Your task to perform on an android device: Clear all items from cart on ebay.com. Image 0: 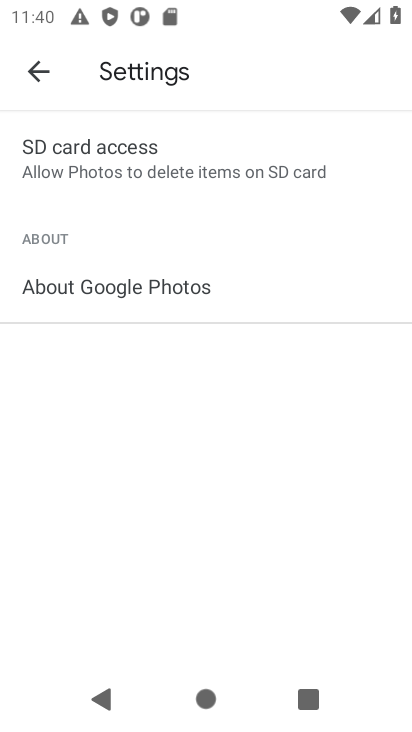
Step 0: press home button
Your task to perform on an android device: Clear all items from cart on ebay.com. Image 1: 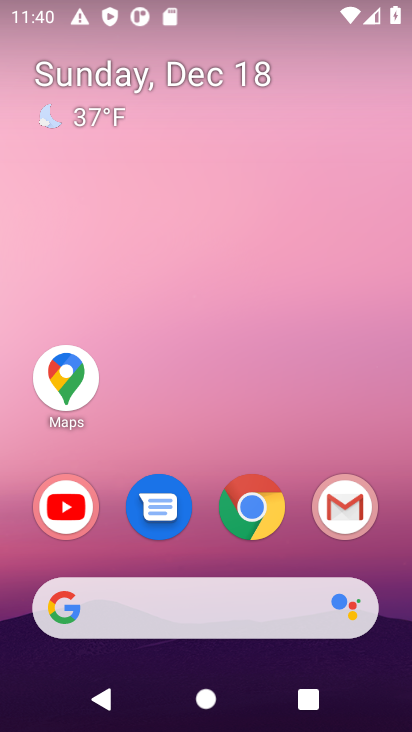
Step 1: click (253, 512)
Your task to perform on an android device: Clear all items from cart on ebay.com. Image 2: 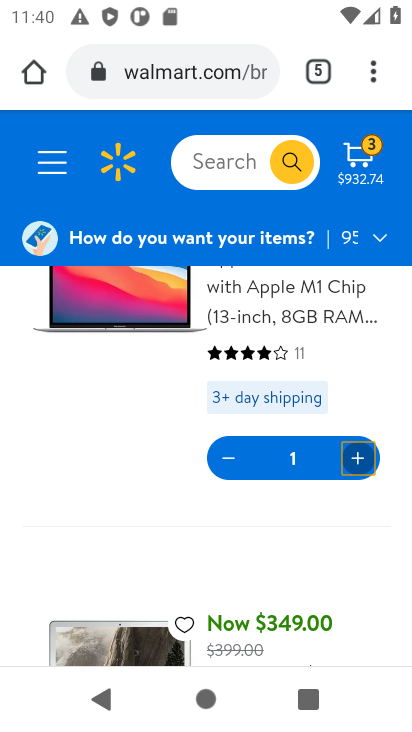
Step 2: click (163, 78)
Your task to perform on an android device: Clear all items from cart on ebay.com. Image 3: 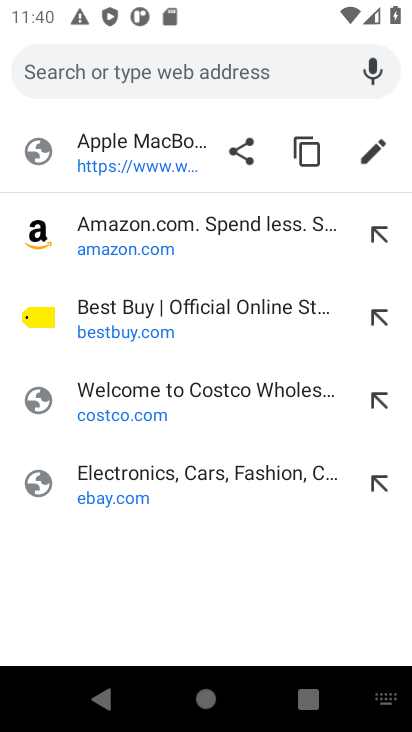
Step 3: click (107, 482)
Your task to perform on an android device: Clear all items from cart on ebay.com. Image 4: 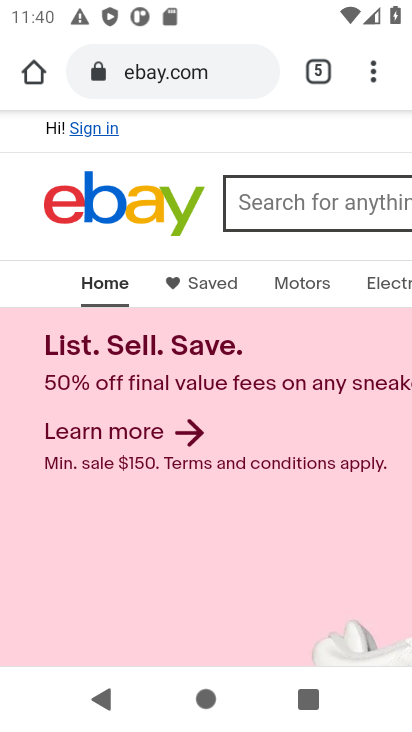
Step 4: drag from (278, 248) to (29, 221)
Your task to perform on an android device: Clear all items from cart on ebay.com. Image 5: 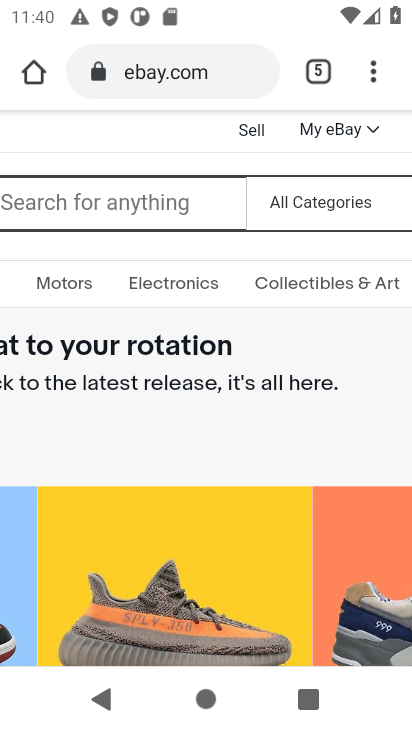
Step 5: drag from (324, 166) to (0, 158)
Your task to perform on an android device: Clear all items from cart on ebay.com. Image 6: 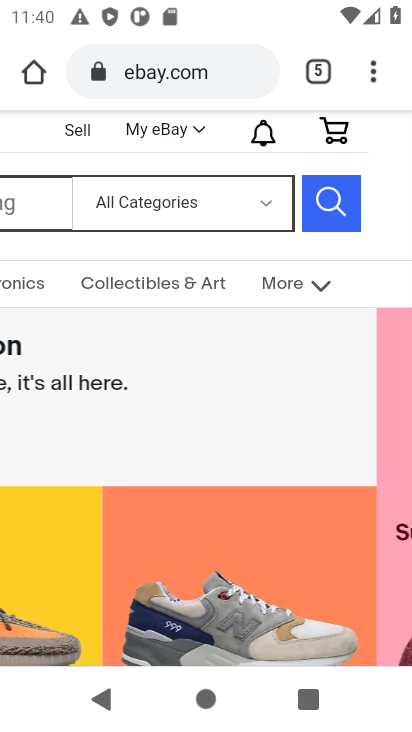
Step 6: click (328, 131)
Your task to perform on an android device: Clear all items from cart on ebay.com. Image 7: 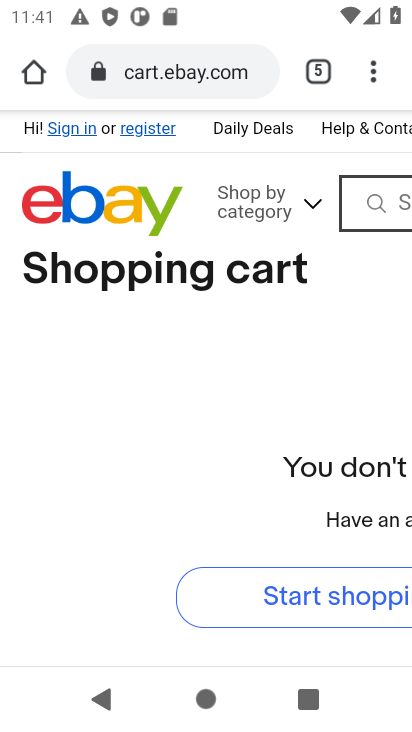
Step 7: task complete